Your task to perform on an android device: Open the map Image 0: 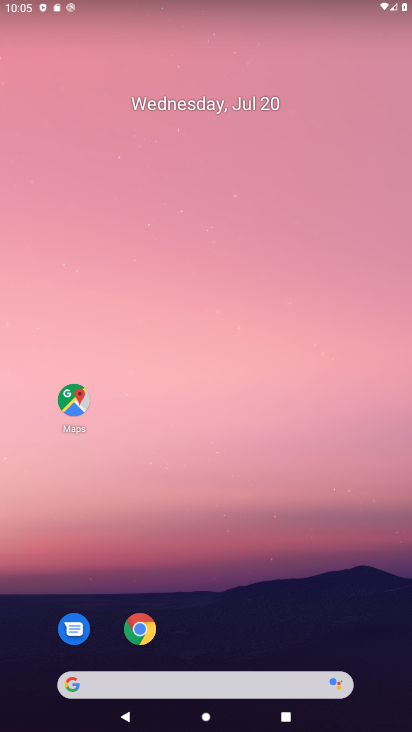
Step 0: drag from (198, 604) to (260, 26)
Your task to perform on an android device: Open the map Image 1: 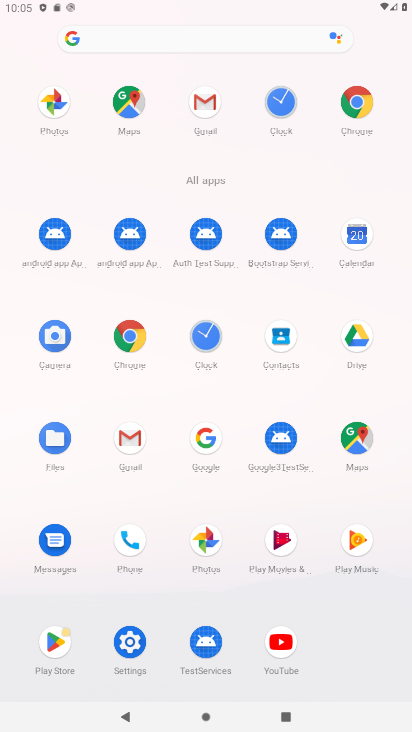
Step 1: click (352, 423)
Your task to perform on an android device: Open the map Image 2: 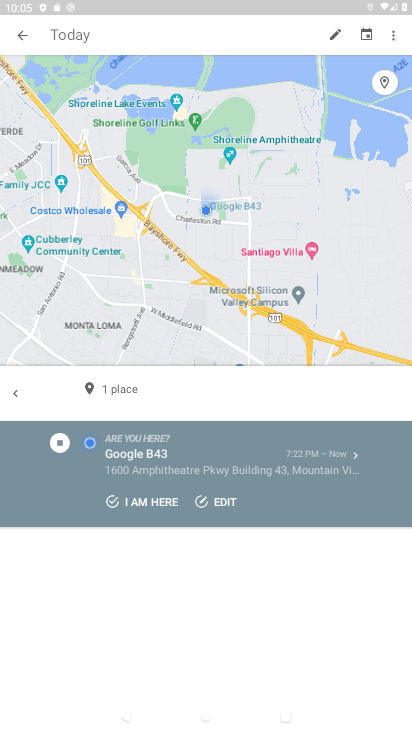
Step 2: task complete